Your task to perform on an android device: turn off translation in the chrome app Image 0: 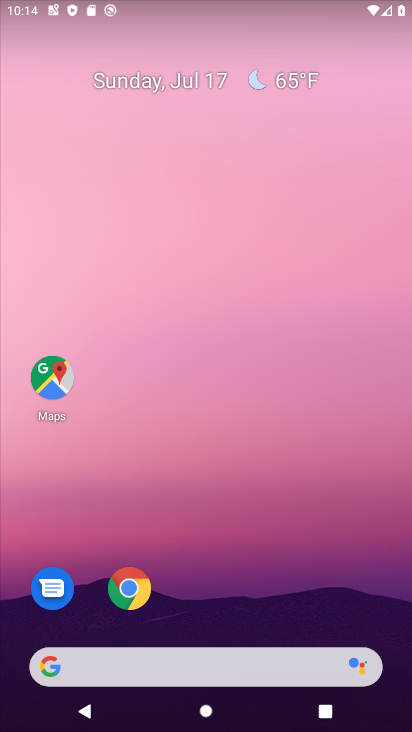
Step 0: click (132, 592)
Your task to perform on an android device: turn off translation in the chrome app Image 1: 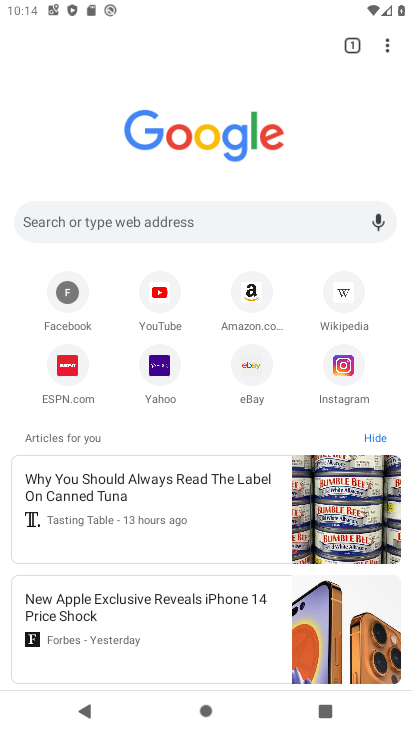
Step 1: click (383, 48)
Your task to perform on an android device: turn off translation in the chrome app Image 2: 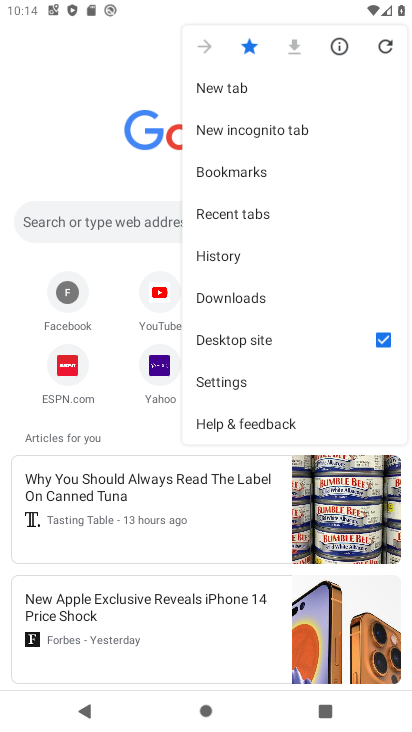
Step 2: click (203, 377)
Your task to perform on an android device: turn off translation in the chrome app Image 3: 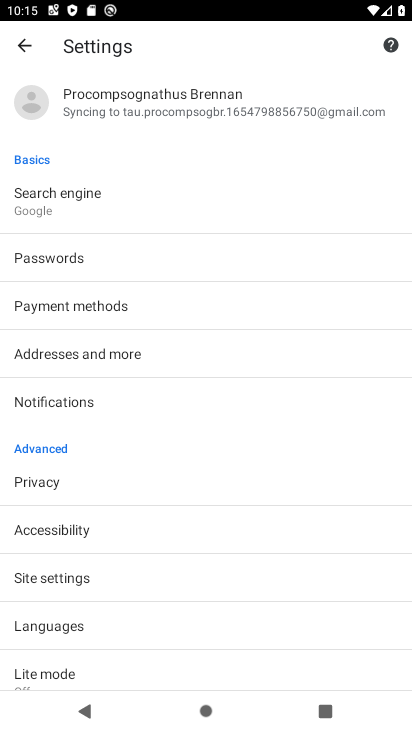
Step 3: click (41, 618)
Your task to perform on an android device: turn off translation in the chrome app Image 4: 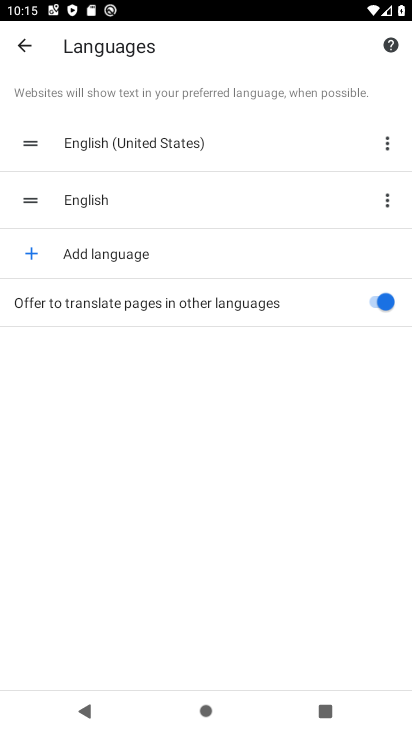
Step 4: click (379, 308)
Your task to perform on an android device: turn off translation in the chrome app Image 5: 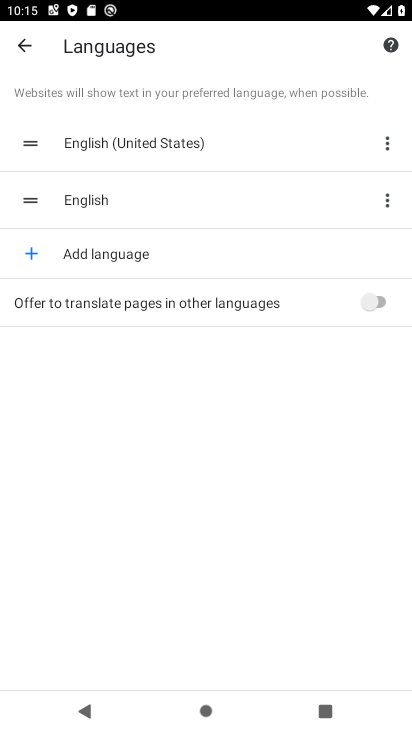
Step 5: task complete